Your task to perform on an android device: Show me the alarms in the clock app Image 0: 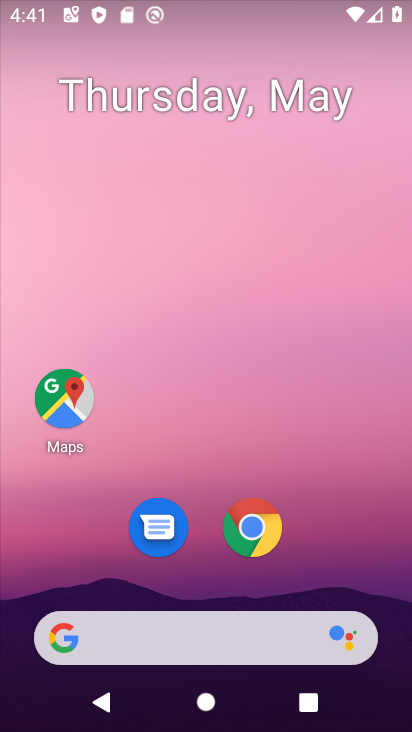
Step 0: drag from (358, 513) to (313, 68)
Your task to perform on an android device: Show me the alarms in the clock app Image 1: 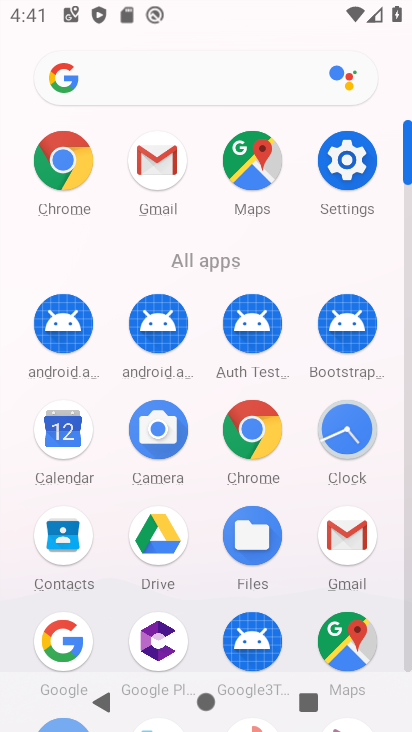
Step 1: click (333, 436)
Your task to perform on an android device: Show me the alarms in the clock app Image 2: 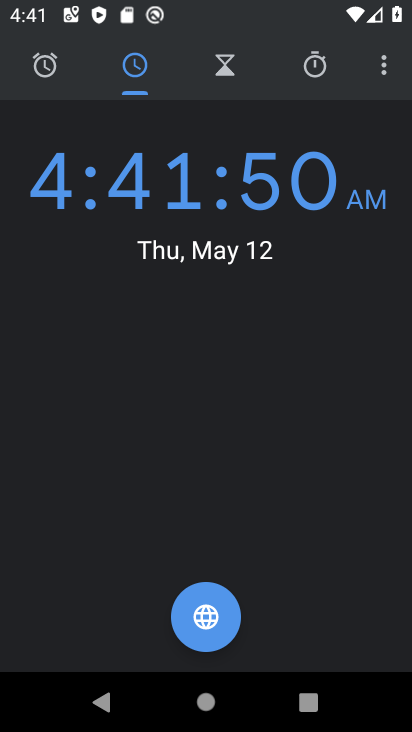
Step 2: click (68, 93)
Your task to perform on an android device: Show me the alarms in the clock app Image 3: 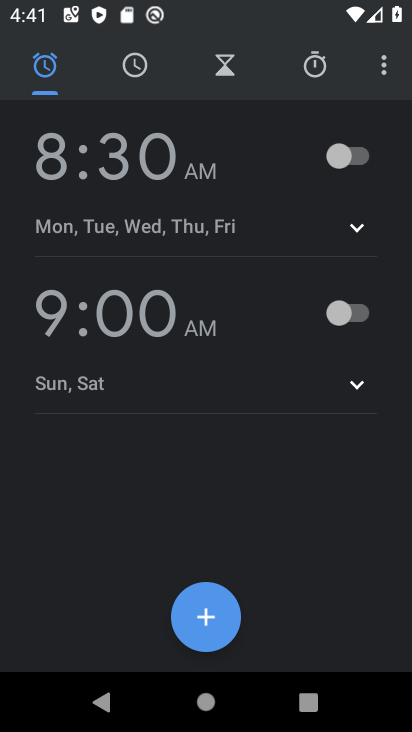
Step 3: click (87, 155)
Your task to perform on an android device: Show me the alarms in the clock app Image 4: 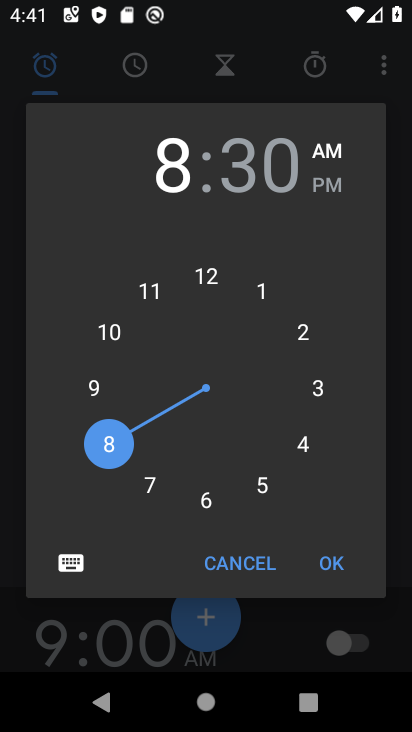
Step 4: task complete